Your task to perform on an android device: check storage Image 0: 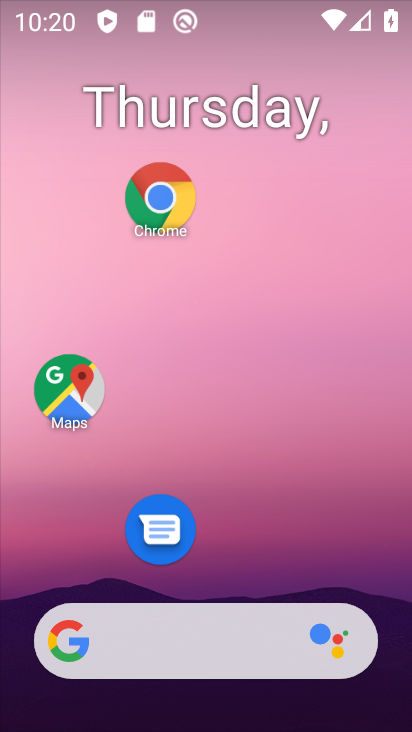
Step 0: drag from (265, 505) to (209, 9)
Your task to perform on an android device: check storage Image 1: 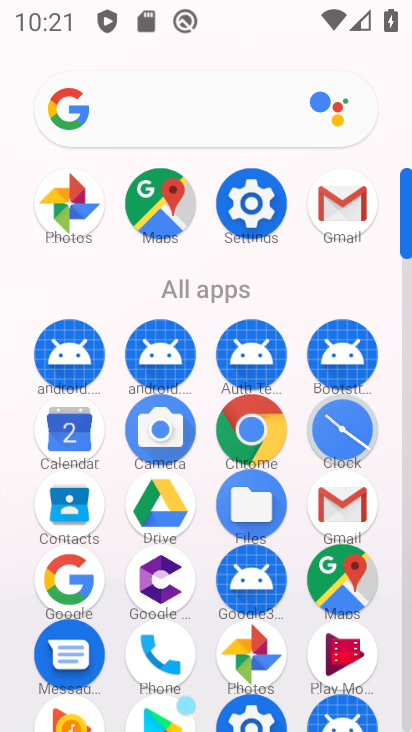
Step 1: click (253, 195)
Your task to perform on an android device: check storage Image 2: 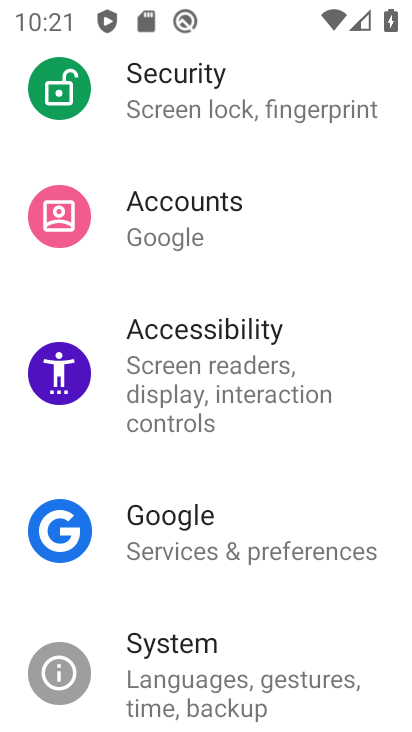
Step 2: drag from (274, 270) to (151, 666)
Your task to perform on an android device: check storage Image 3: 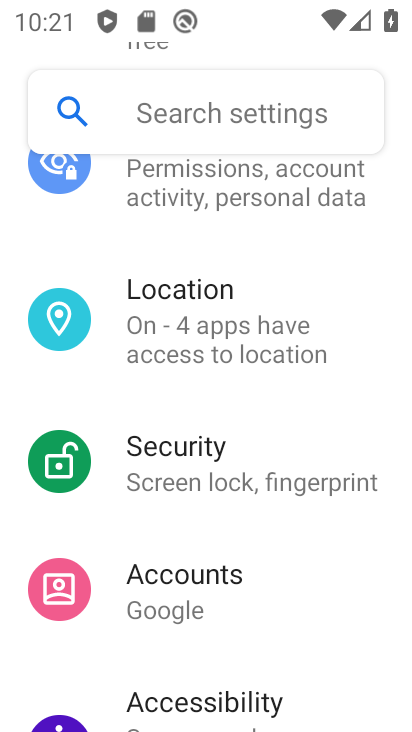
Step 3: drag from (179, 254) to (175, 710)
Your task to perform on an android device: check storage Image 4: 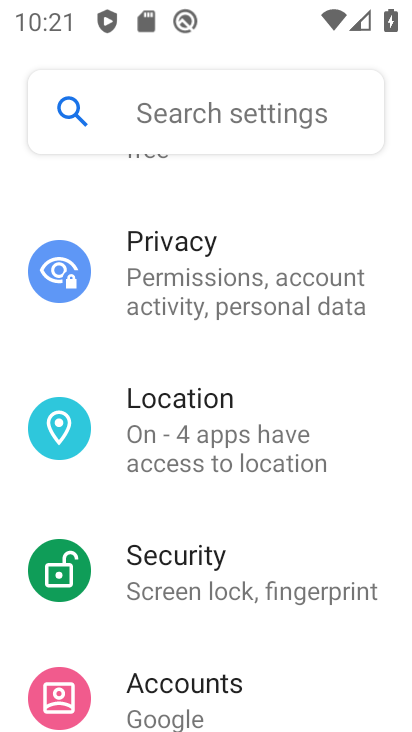
Step 4: drag from (233, 214) to (197, 542)
Your task to perform on an android device: check storage Image 5: 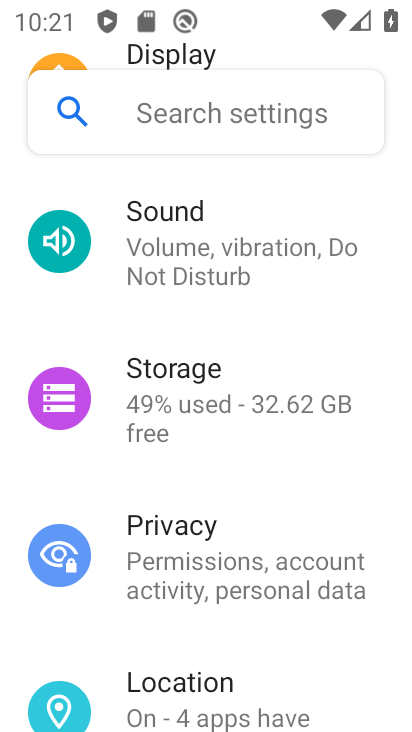
Step 5: click (183, 360)
Your task to perform on an android device: check storage Image 6: 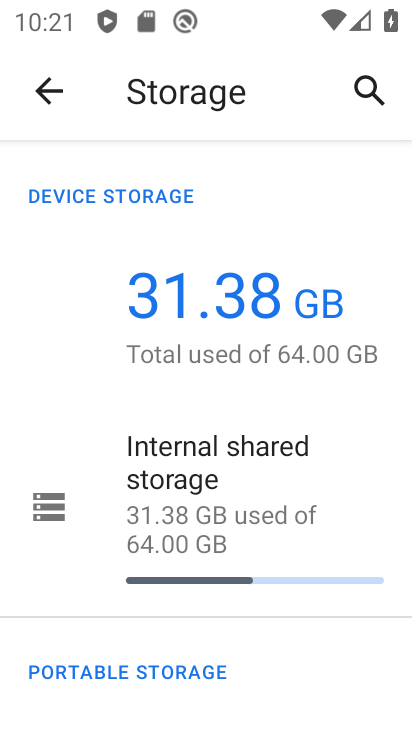
Step 6: task complete